Your task to perform on an android device: Search for Mexican restaurants on Maps Image 0: 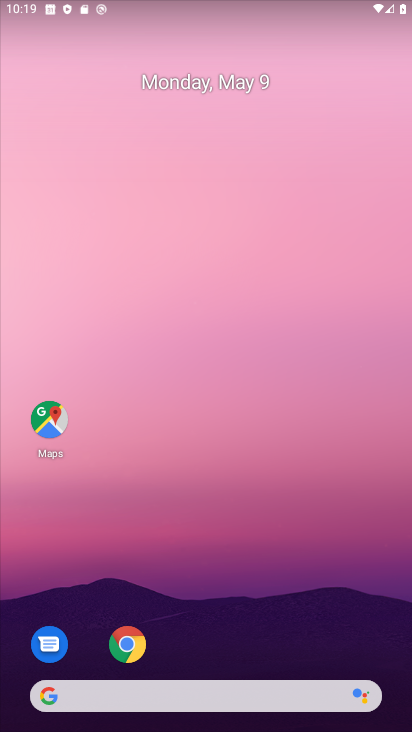
Step 0: click (43, 414)
Your task to perform on an android device: Search for Mexican restaurants on Maps Image 1: 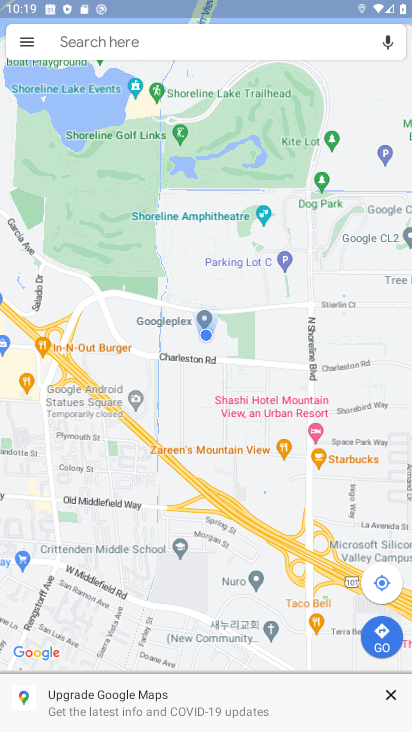
Step 1: click (154, 45)
Your task to perform on an android device: Search for Mexican restaurants on Maps Image 2: 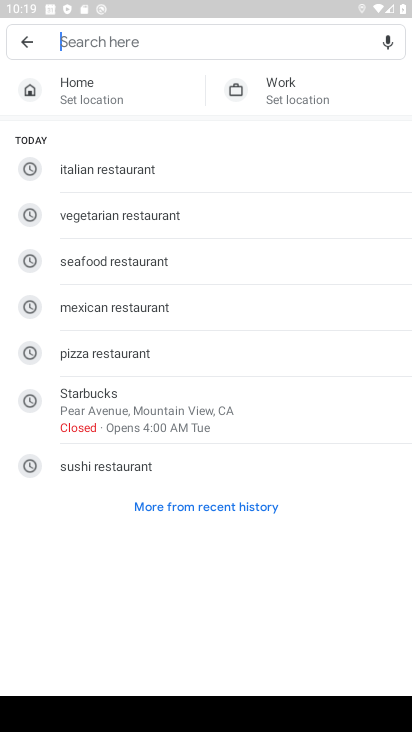
Step 2: type "mexican restaurants"
Your task to perform on an android device: Search for Mexican restaurants on Maps Image 3: 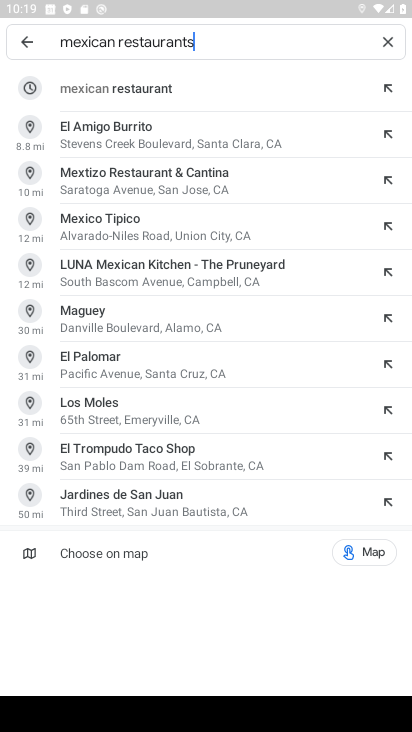
Step 3: click (114, 95)
Your task to perform on an android device: Search for Mexican restaurants on Maps Image 4: 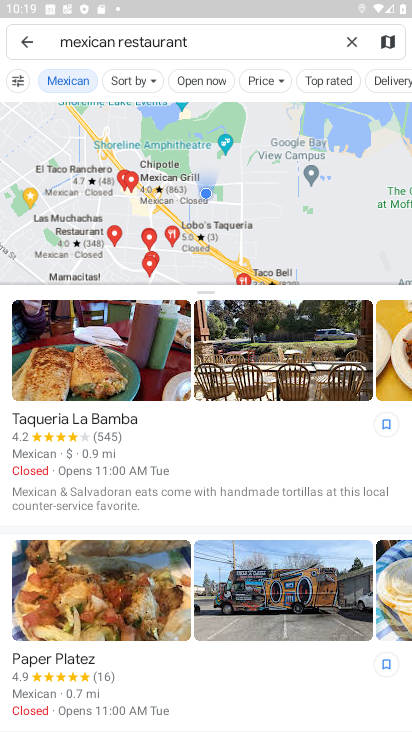
Step 4: task complete